Your task to perform on an android device: visit the assistant section in the google photos Image 0: 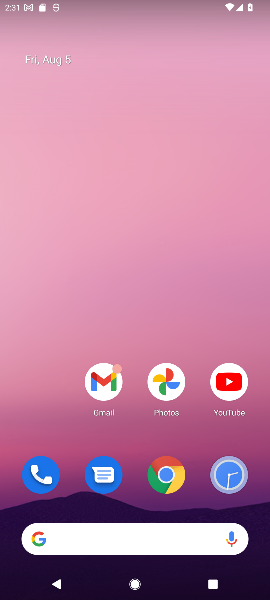
Step 0: click (160, 371)
Your task to perform on an android device: visit the assistant section in the google photos Image 1: 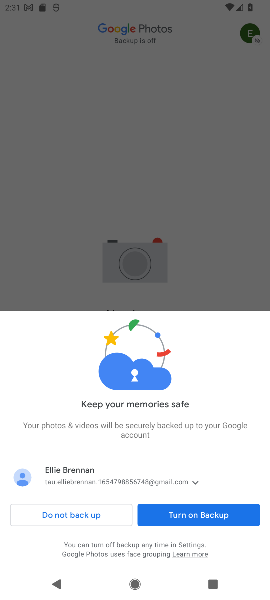
Step 1: click (100, 511)
Your task to perform on an android device: visit the assistant section in the google photos Image 2: 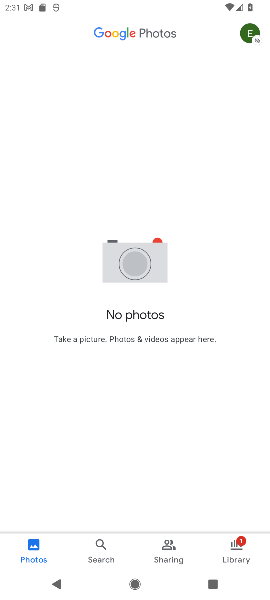
Step 2: task complete